Your task to perform on an android device: Go to Wikipedia Image 0: 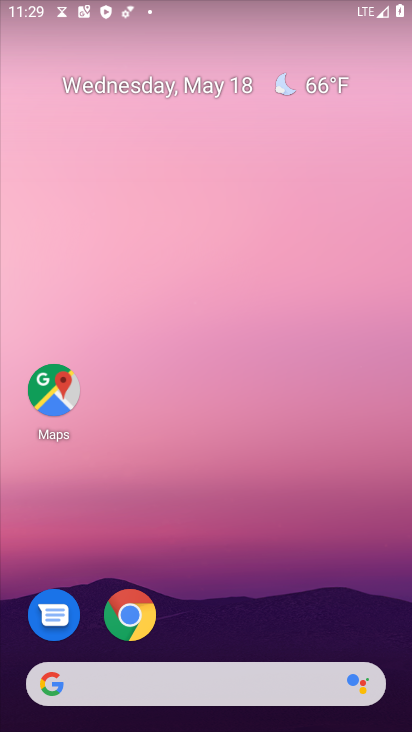
Step 0: drag from (259, 536) to (200, 0)
Your task to perform on an android device: Go to Wikipedia Image 1: 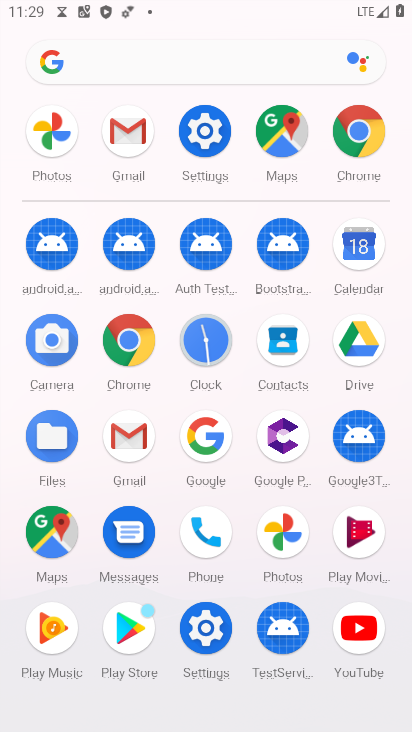
Step 1: drag from (8, 464) to (19, 245)
Your task to perform on an android device: Go to Wikipedia Image 2: 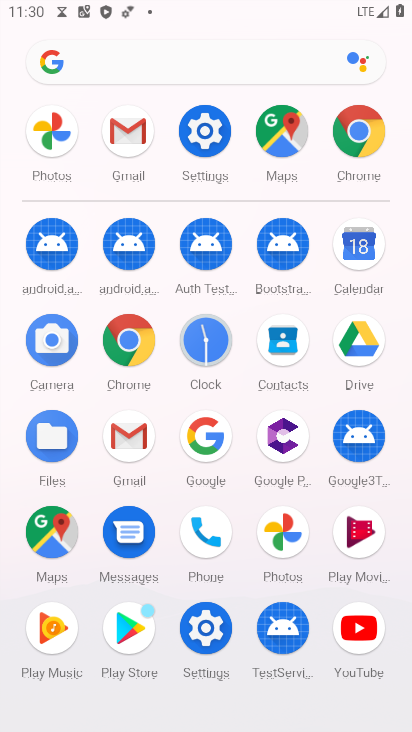
Step 2: click (129, 340)
Your task to perform on an android device: Go to Wikipedia Image 3: 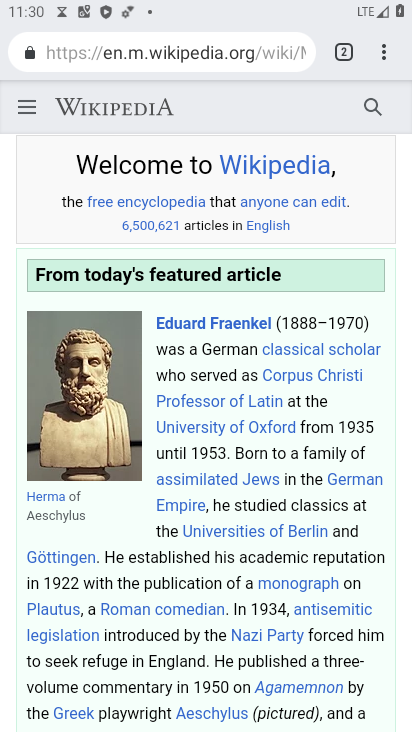
Step 3: click (153, 42)
Your task to perform on an android device: Go to Wikipedia Image 4: 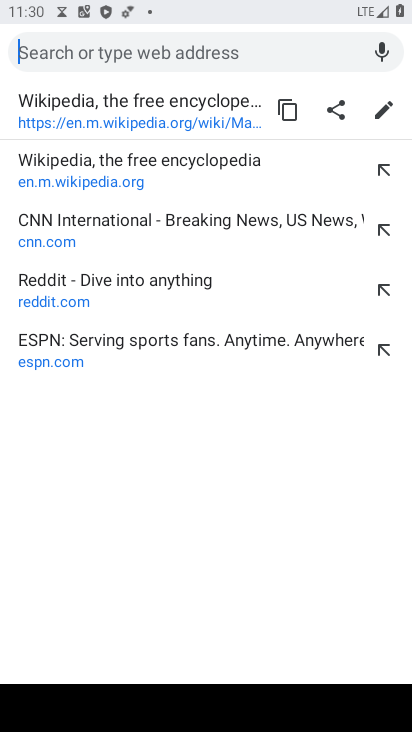
Step 4: click (107, 111)
Your task to perform on an android device: Go to Wikipedia Image 5: 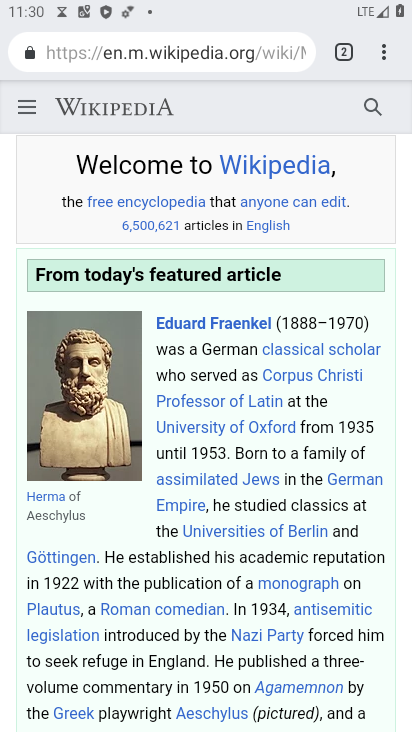
Step 5: task complete